Your task to perform on an android device: What's the weather today? Image 0: 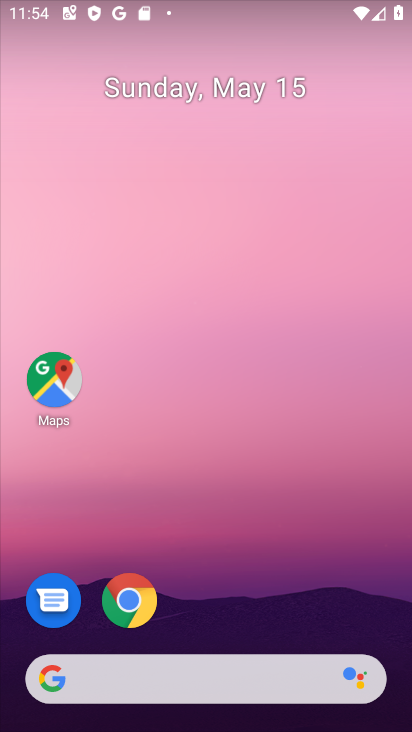
Step 0: drag from (54, 282) to (400, 230)
Your task to perform on an android device: What's the weather today? Image 1: 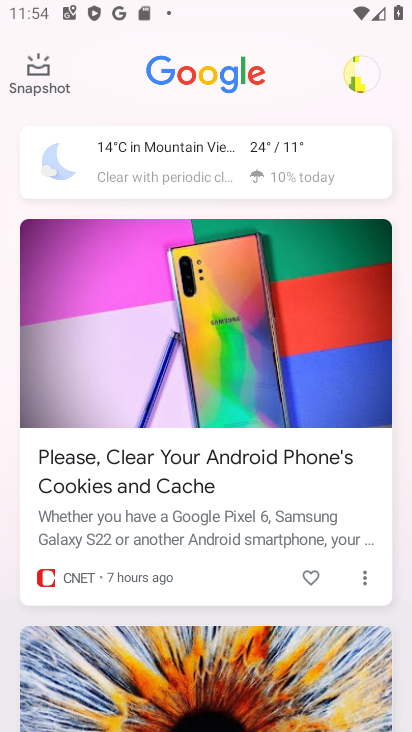
Step 1: click (166, 166)
Your task to perform on an android device: What's the weather today? Image 2: 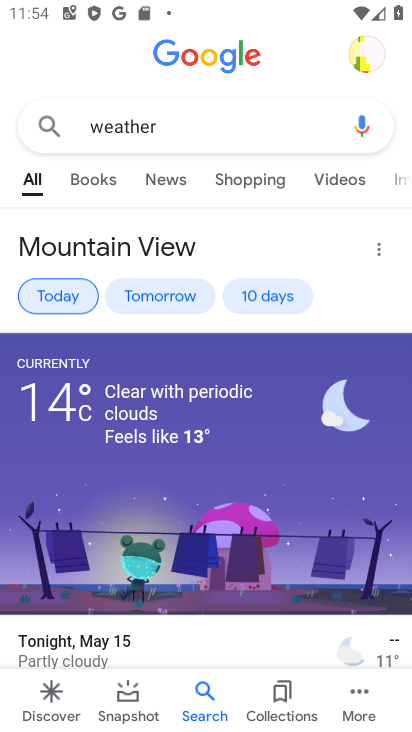
Step 2: task complete